Your task to perform on an android device: open app "Adobe Acrobat Reader: Edit PDF" Image 0: 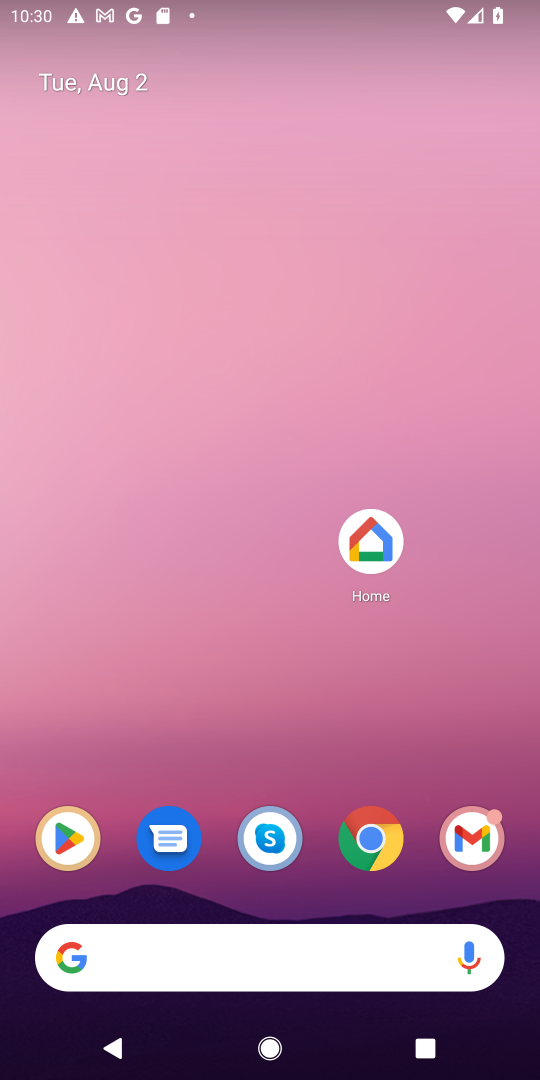
Step 0: press home button
Your task to perform on an android device: open app "Adobe Acrobat Reader: Edit PDF" Image 1: 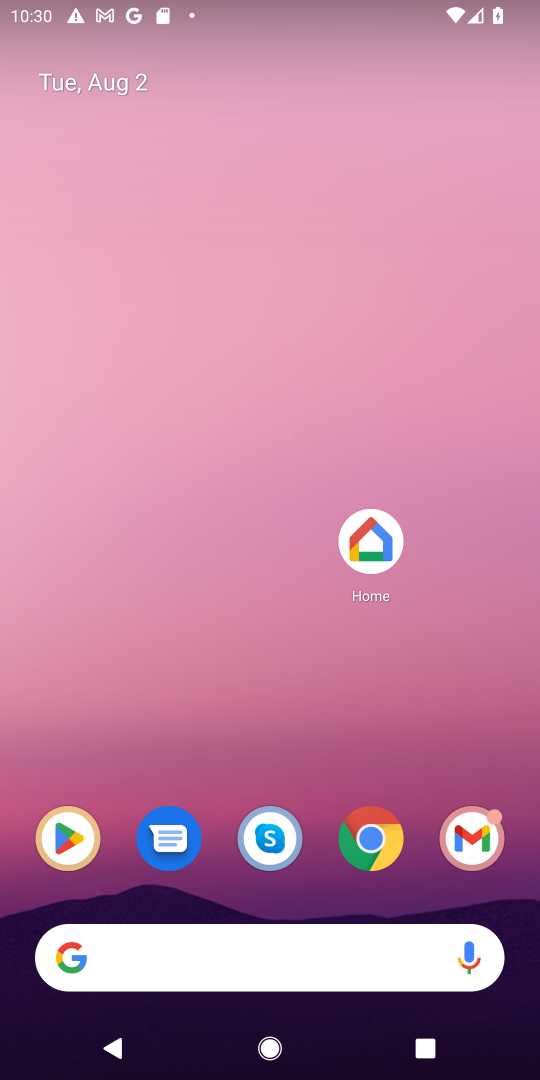
Step 1: drag from (199, 688) to (239, 108)
Your task to perform on an android device: open app "Adobe Acrobat Reader: Edit PDF" Image 2: 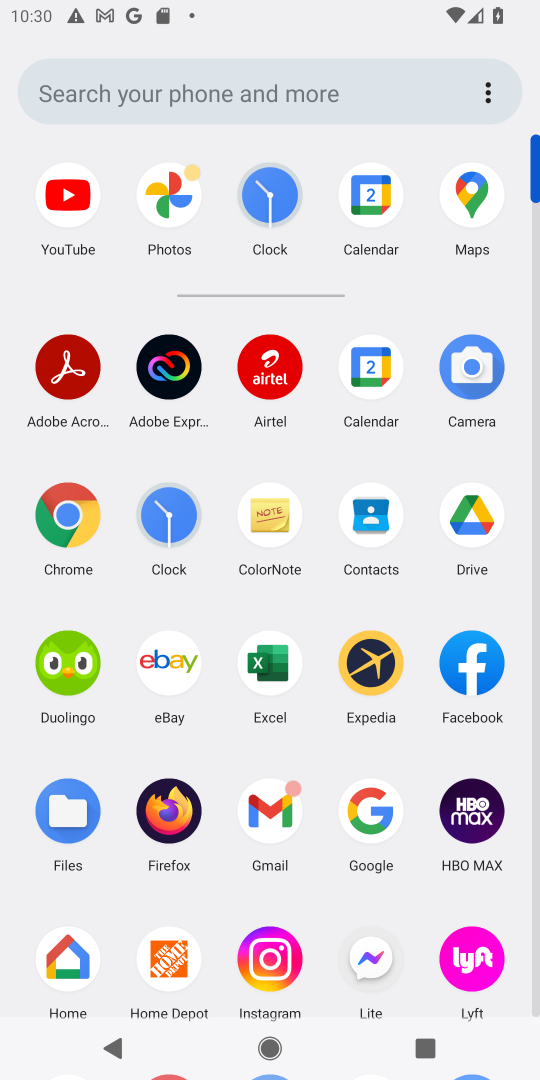
Step 2: drag from (209, 726) to (217, 402)
Your task to perform on an android device: open app "Adobe Acrobat Reader: Edit PDF" Image 3: 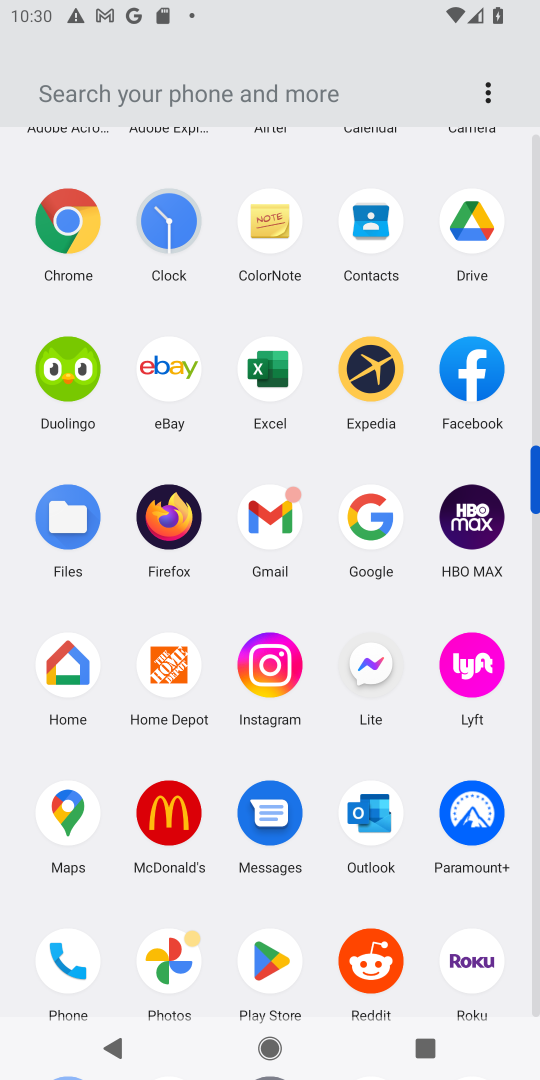
Step 3: drag from (212, 766) to (222, 451)
Your task to perform on an android device: open app "Adobe Acrobat Reader: Edit PDF" Image 4: 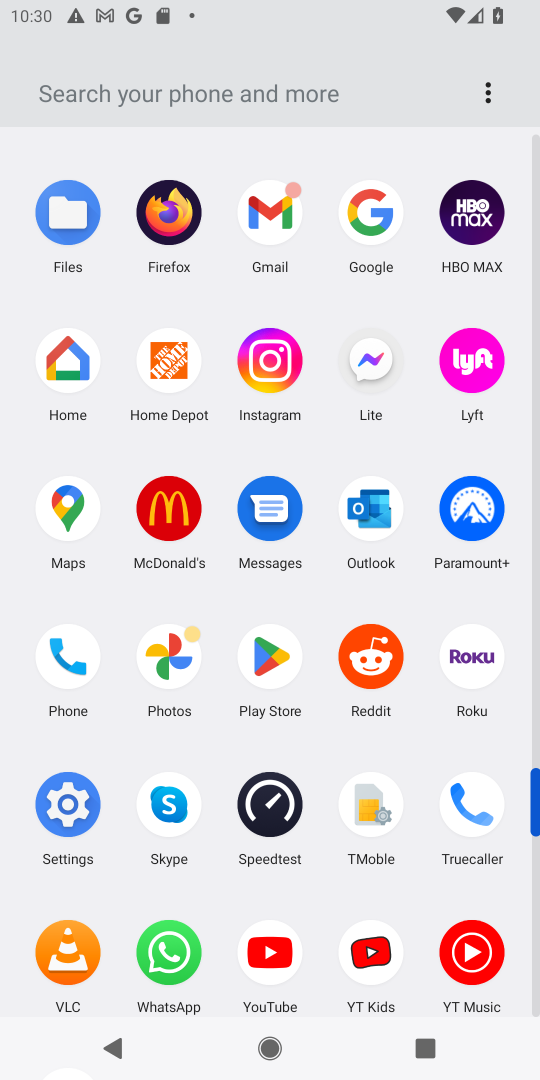
Step 4: click (274, 666)
Your task to perform on an android device: open app "Adobe Acrobat Reader: Edit PDF" Image 5: 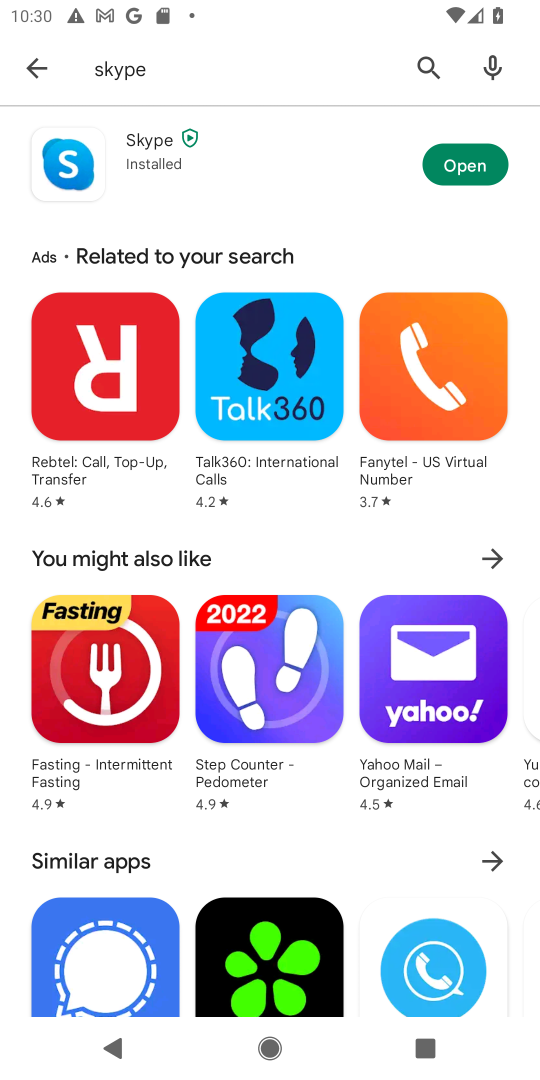
Step 5: click (425, 62)
Your task to perform on an android device: open app "Adobe Acrobat Reader: Edit PDF" Image 6: 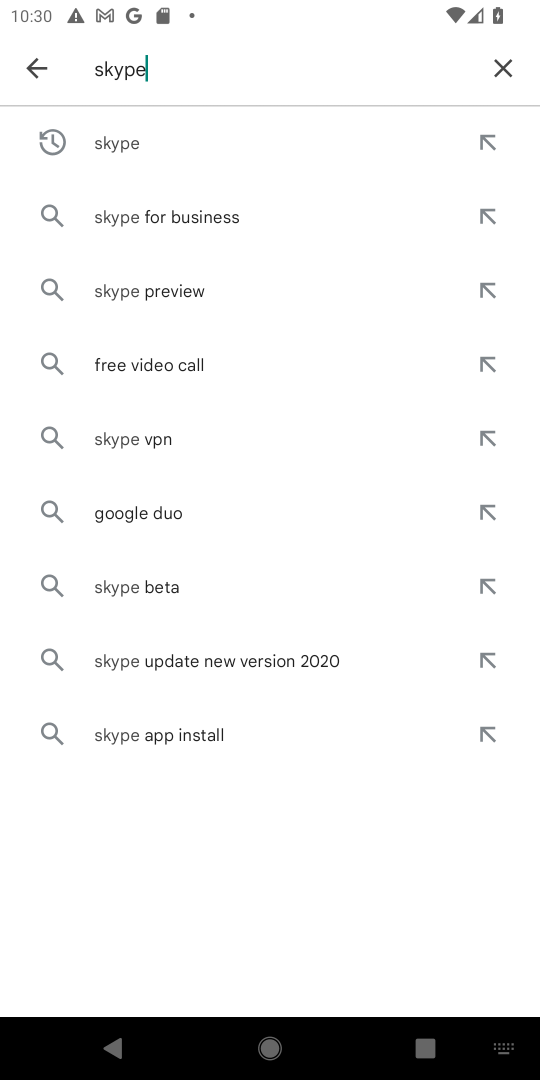
Step 6: click (496, 65)
Your task to perform on an android device: open app "Adobe Acrobat Reader: Edit PDF" Image 7: 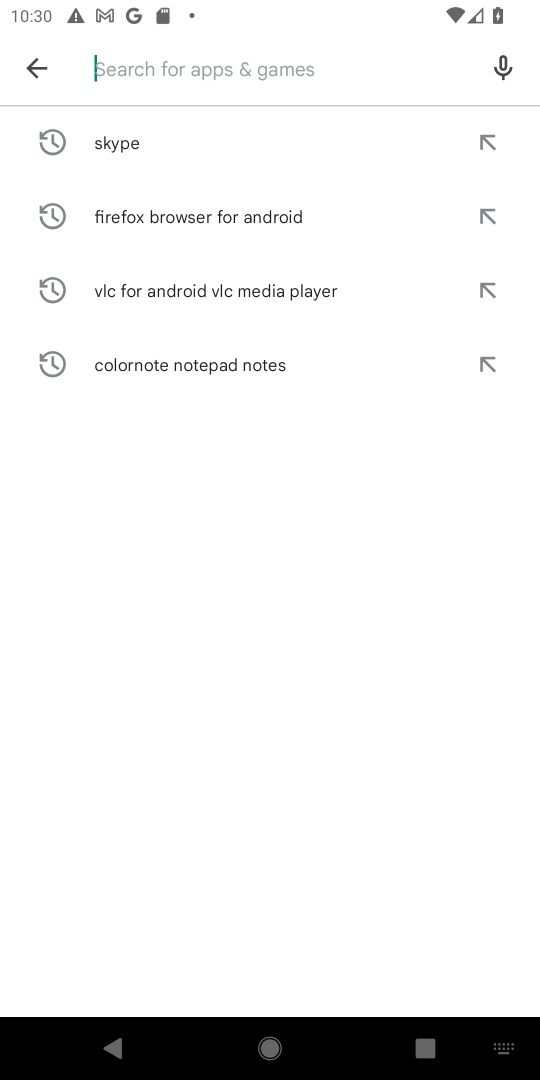
Step 7: click (306, 62)
Your task to perform on an android device: open app "Adobe Acrobat Reader: Edit PDF" Image 8: 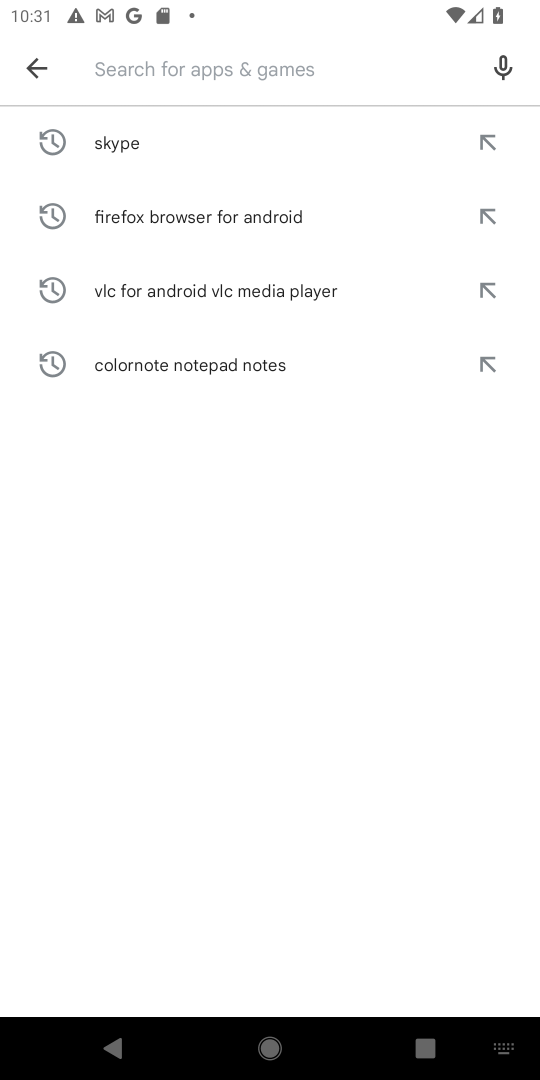
Step 8: type "adobe acrobat reader edit pdf "
Your task to perform on an android device: open app "Adobe Acrobat Reader: Edit PDF" Image 9: 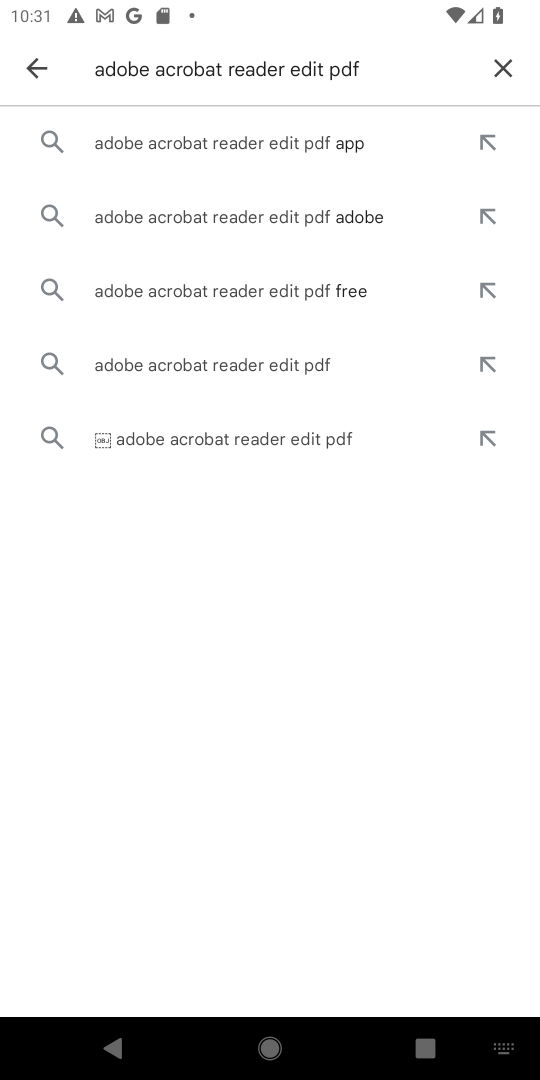
Step 9: click (353, 134)
Your task to perform on an android device: open app "Adobe Acrobat Reader: Edit PDF" Image 10: 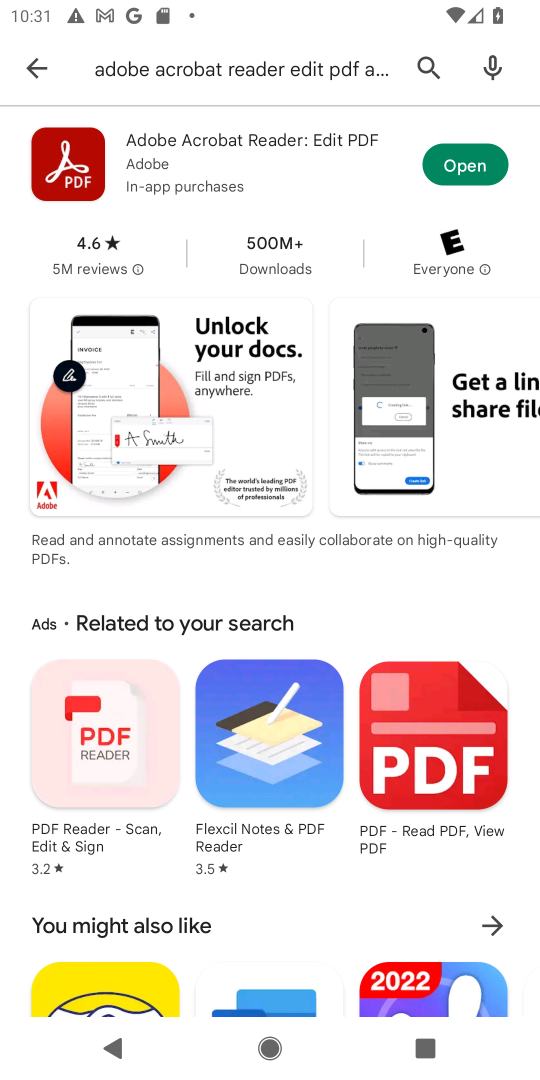
Step 10: click (466, 156)
Your task to perform on an android device: open app "Adobe Acrobat Reader: Edit PDF" Image 11: 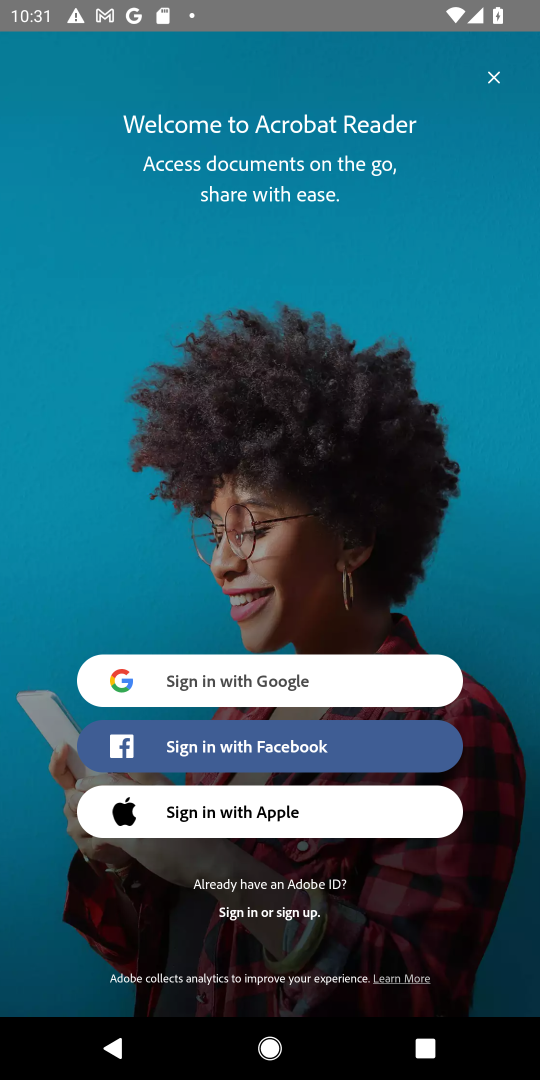
Step 11: task complete